Your task to perform on an android device: Is it going to rain tomorrow? Image 0: 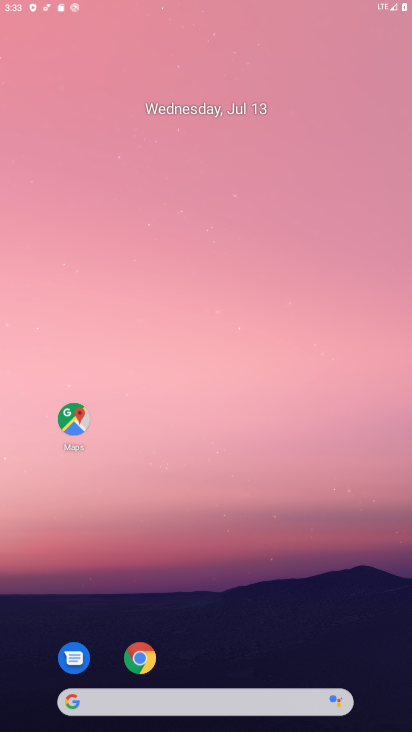
Step 0: press home button
Your task to perform on an android device: Is it going to rain tomorrow? Image 1: 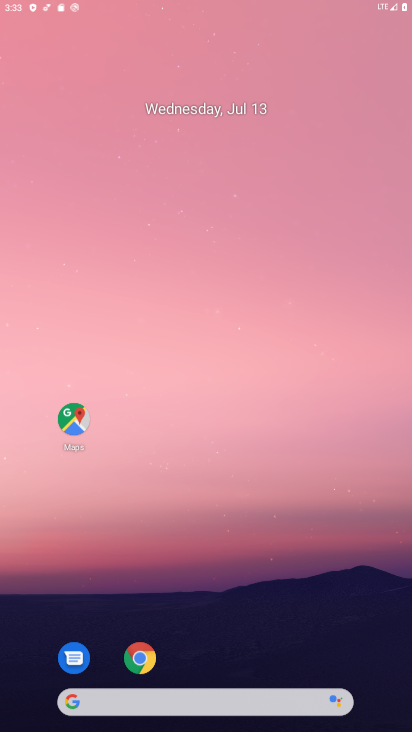
Step 1: click (261, 63)
Your task to perform on an android device: Is it going to rain tomorrow? Image 2: 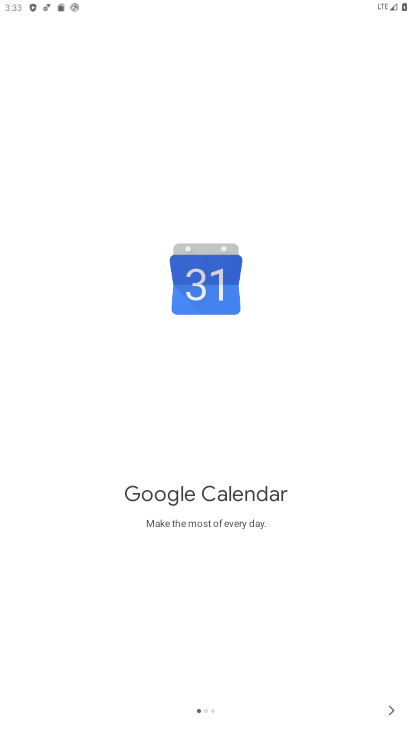
Step 2: press home button
Your task to perform on an android device: Is it going to rain tomorrow? Image 3: 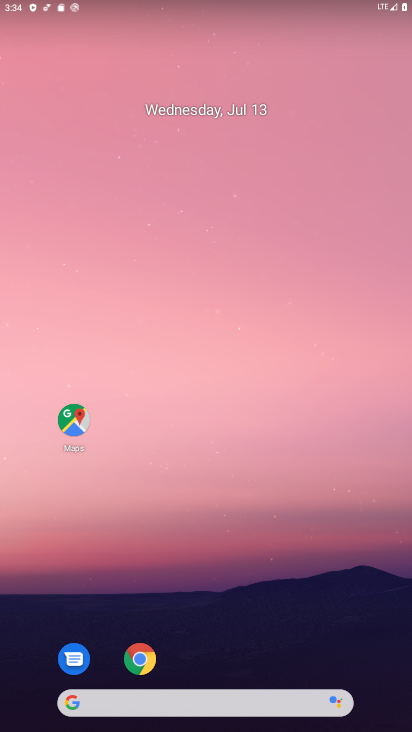
Step 3: click (166, 705)
Your task to perform on an android device: Is it going to rain tomorrow? Image 4: 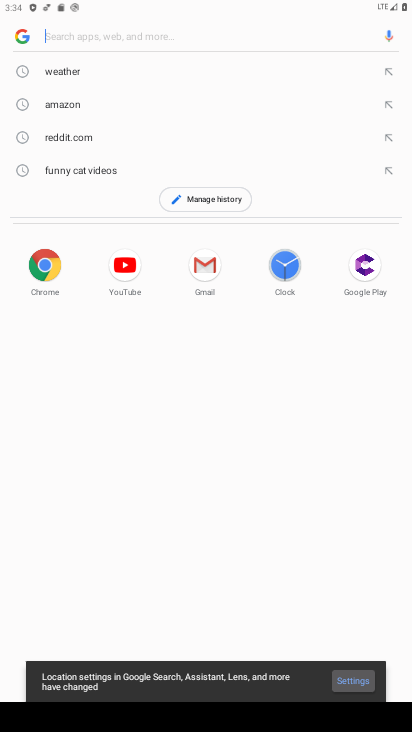
Step 4: click (97, 73)
Your task to perform on an android device: Is it going to rain tomorrow? Image 5: 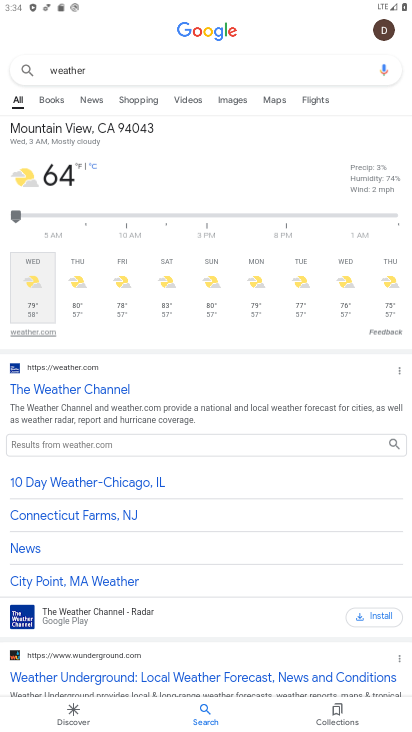
Step 5: click (73, 274)
Your task to perform on an android device: Is it going to rain tomorrow? Image 6: 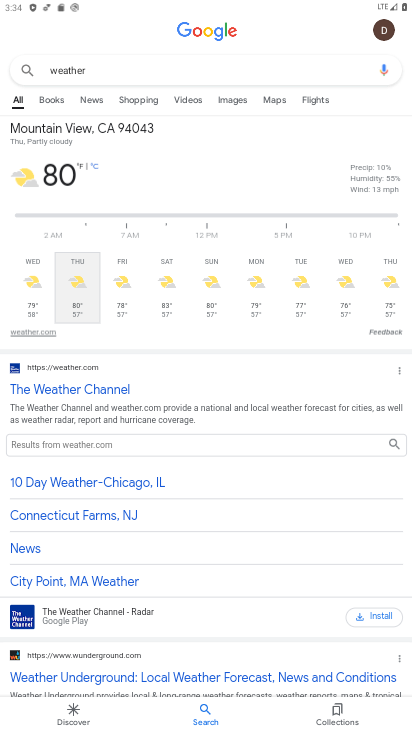
Step 6: click (84, 284)
Your task to perform on an android device: Is it going to rain tomorrow? Image 7: 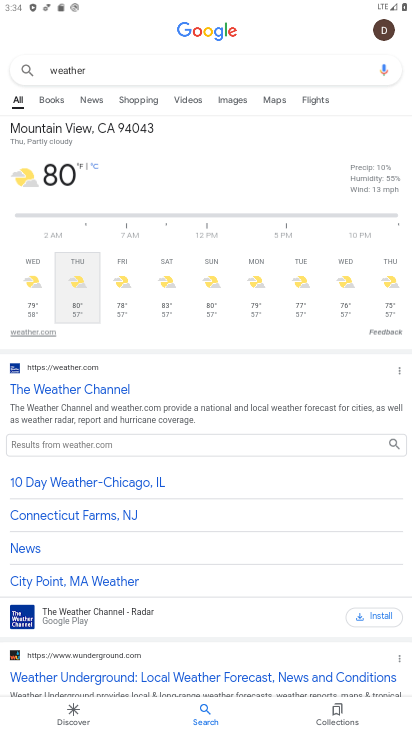
Step 7: task complete